Your task to perform on an android device: Open location settings Image 0: 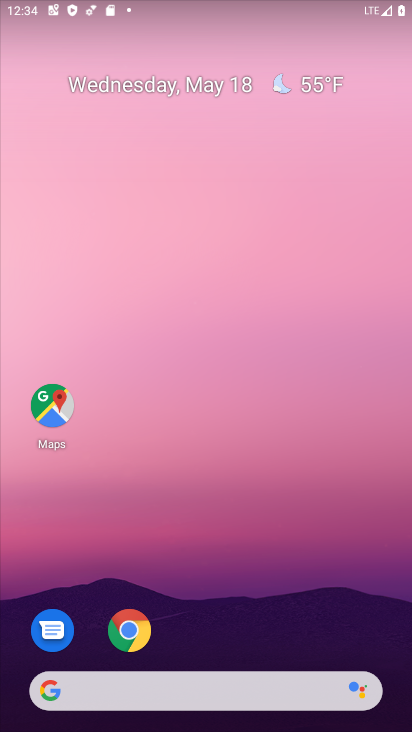
Step 0: drag from (189, 667) to (297, 224)
Your task to perform on an android device: Open location settings Image 1: 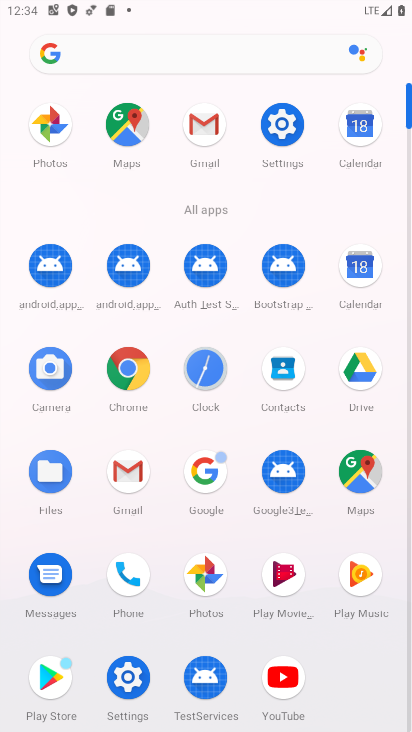
Step 1: drag from (165, 675) to (213, 503)
Your task to perform on an android device: Open location settings Image 2: 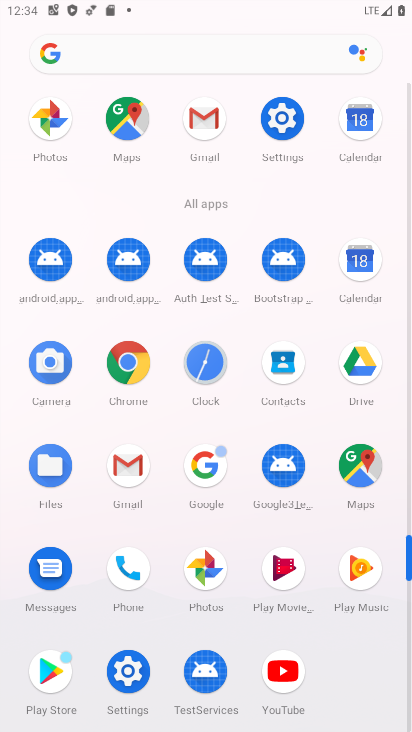
Step 2: click (135, 672)
Your task to perform on an android device: Open location settings Image 3: 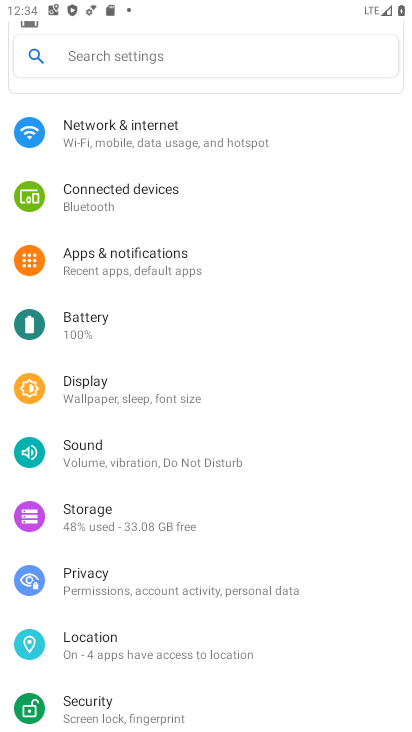
Step 3: click (130, 649)
Your task to perform on an android device: Open location settings Image 4: 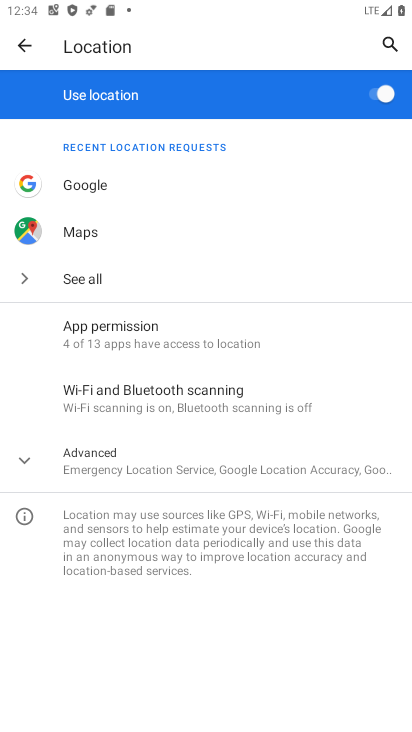
Step 4: task complete